Your task to perform on an android device: Search for "asus rog" on target, select the first entry, and add it to the cart. Image 0: 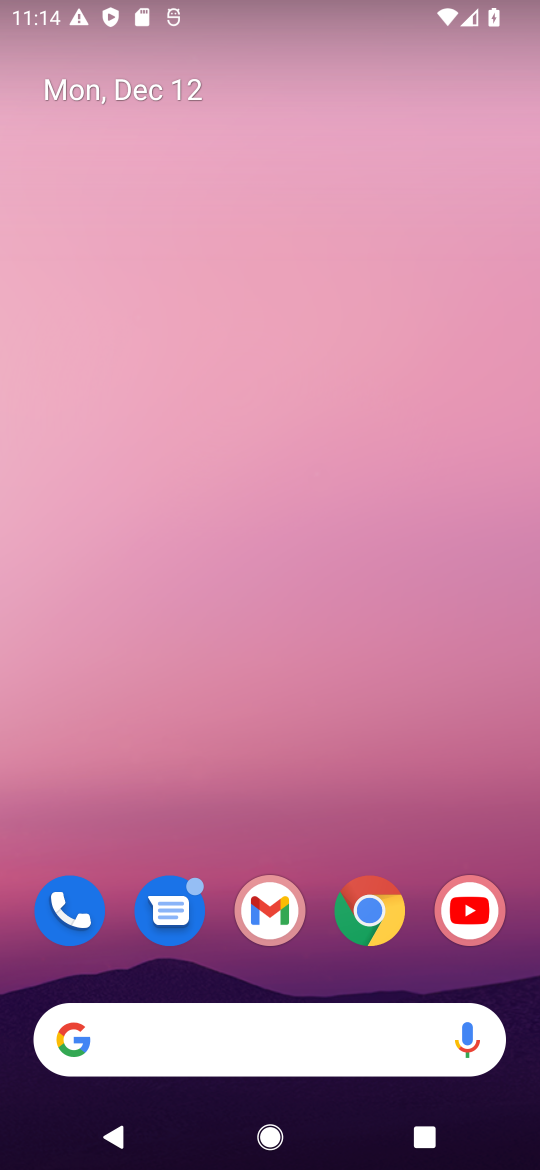
Step 0: click (356, 936)
Your task to perform on an android device: Search for "asus rog" on target, select the first entry, and add it to the cart. Image 1: 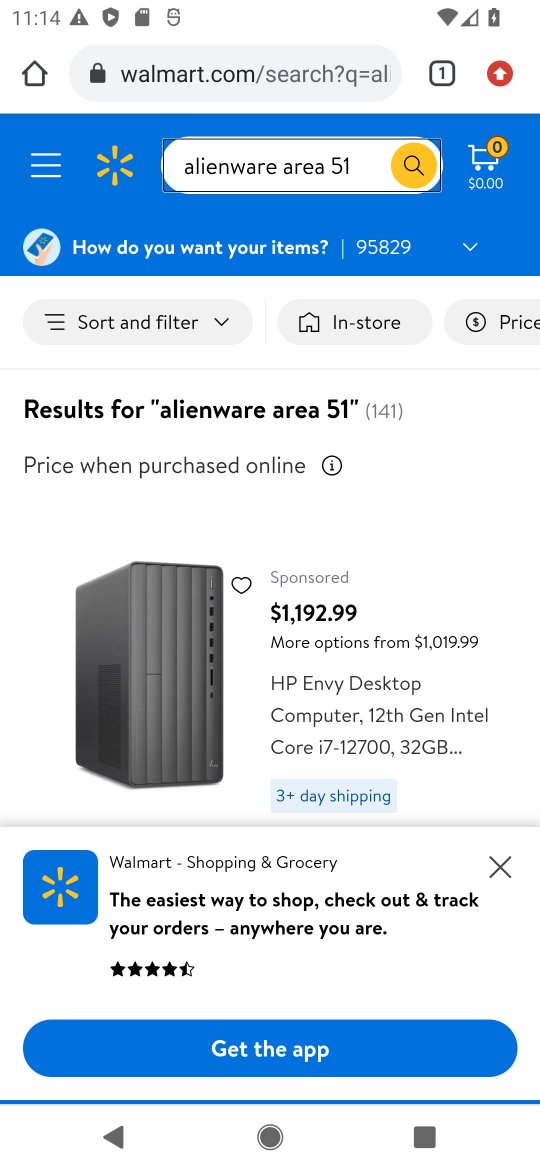
Step 1: click (260, 70)
Your task to perform on an android device: Search for "asus rog" on target, select the first entry, and add it to the cart. Image 2: 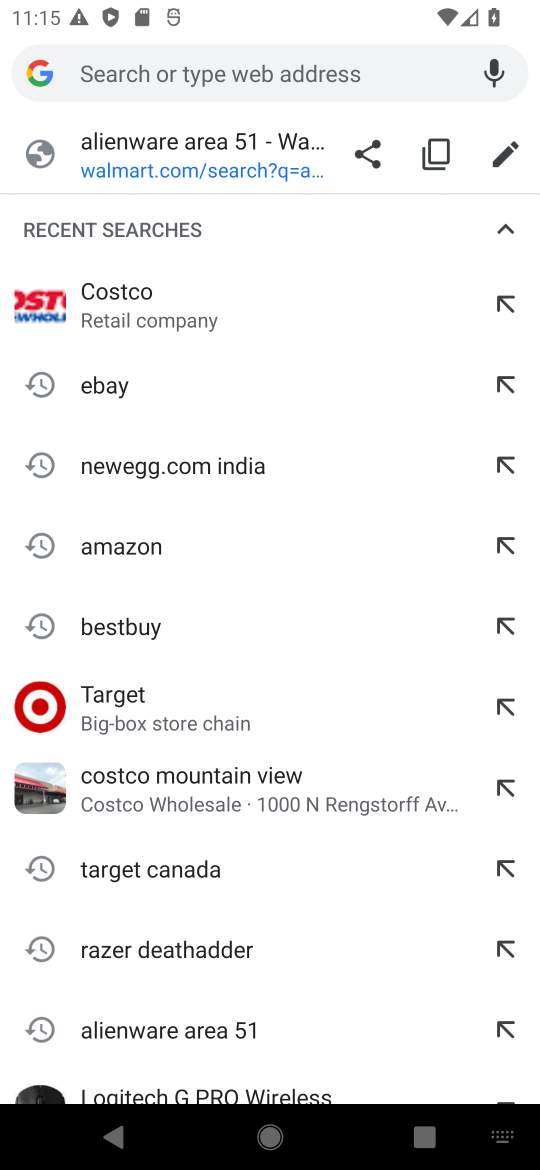
Step 2: click (115, 700)
Your task to perform on an android device: Search for "asus rog" on target, select the first entry, and add it to the cart. Image 3: 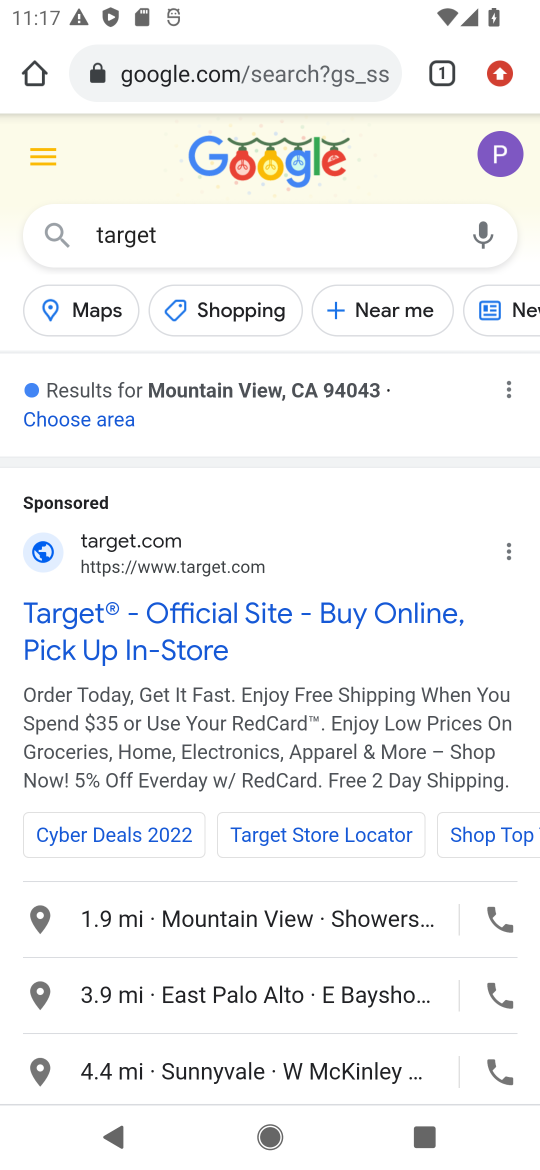
Step 3: click (140, 630)
Your task to perform on an android device: Search for "asus rog" on target, select the first entry, and add it to the cart. Image 4: 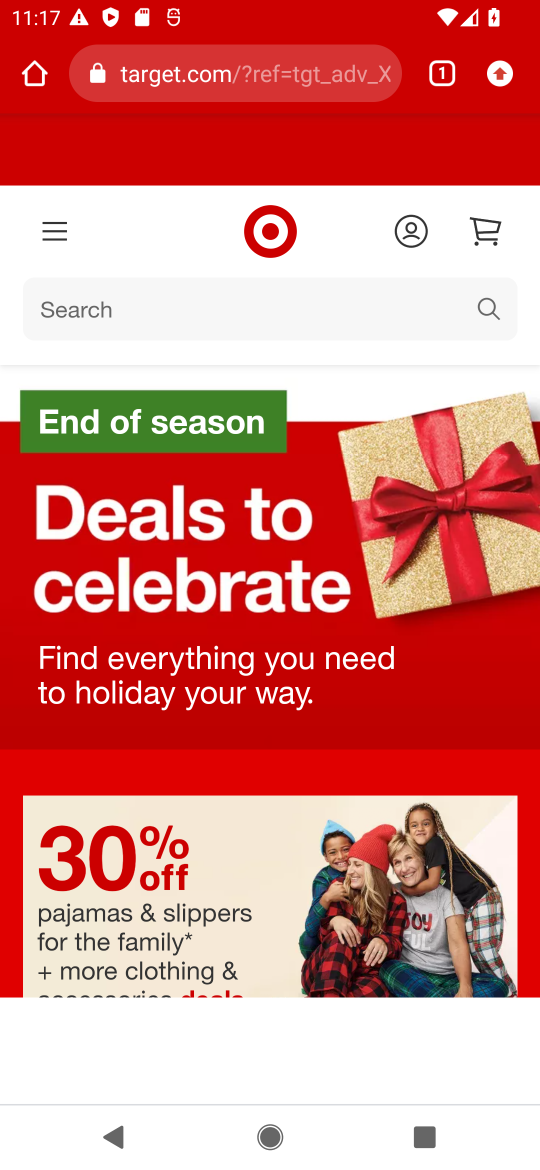
Step 4: click (294, 302)
Your task to perform on an android device: Search for "asus rog" on target, select the first entry, and add it to the cart. Image 5: 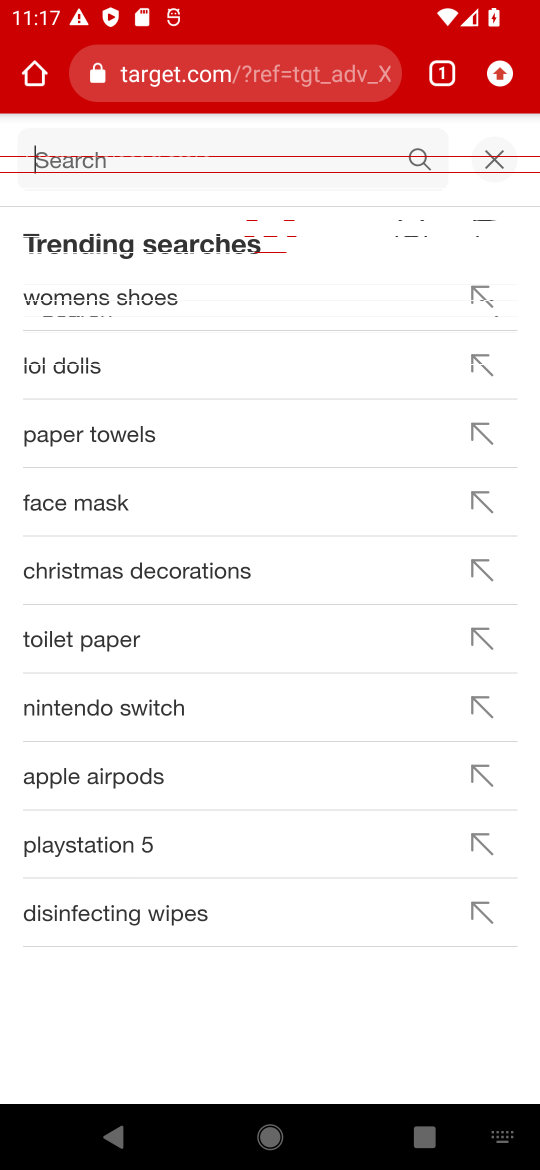
Step 5: type "asus rog"
Your task to perform on an android device: Search for "asus rog" on target, select the first entry, and add it to the cart. Image 6: 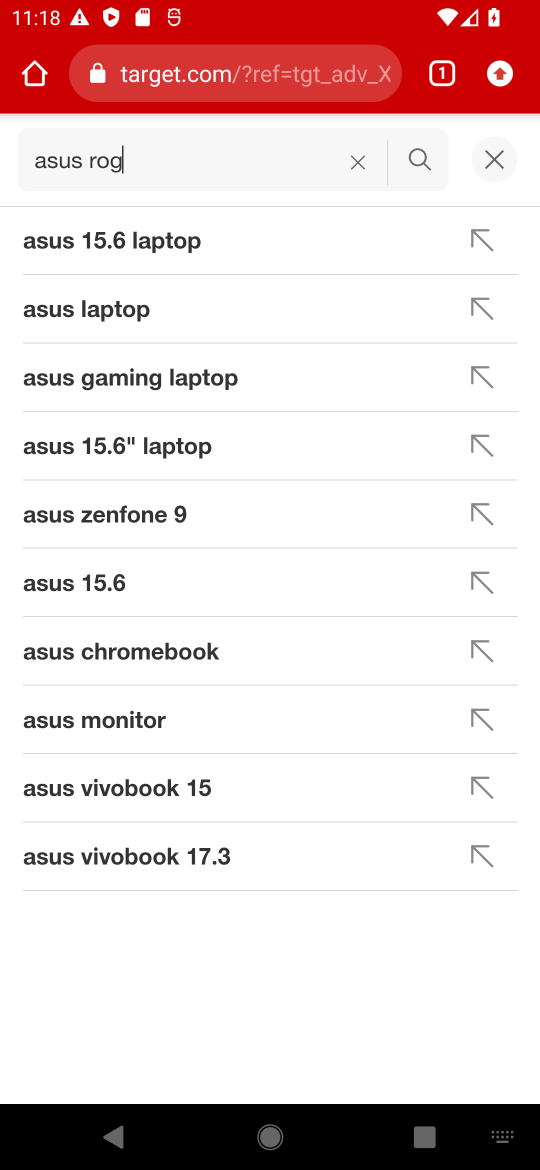
Step 6: click (109, 249)
Your task to perform on an android device: Search for "asus rog" on target, select the first entry, and add it to the cart. Image 7: 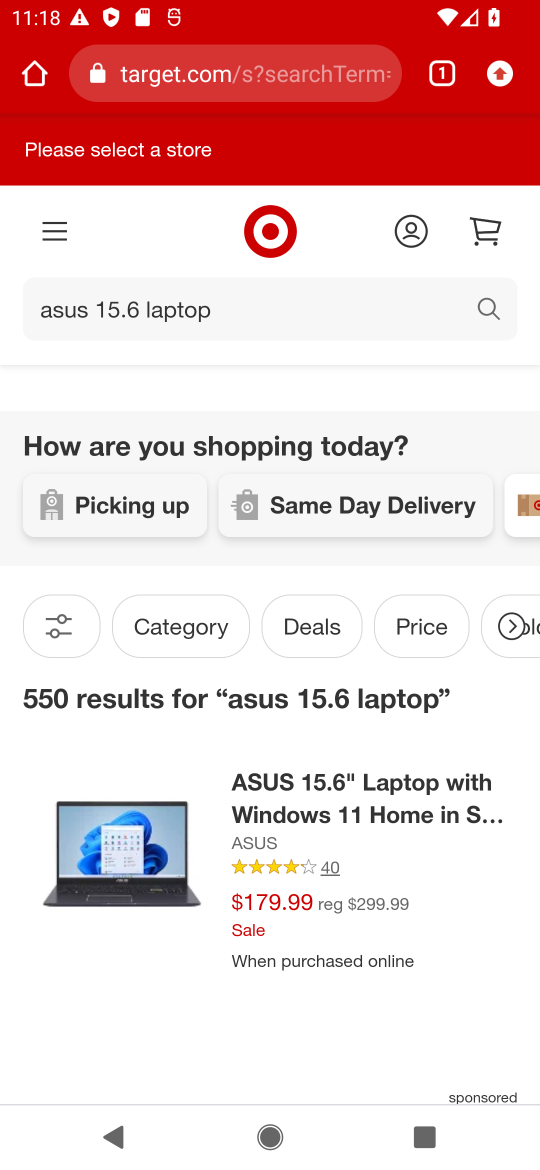
Step 7: drag from (370, 840) to (289, 282)
Your task to perform on an android device: Search for "asus rog" on target, select the first entry, and add it to the cart. Image 8: 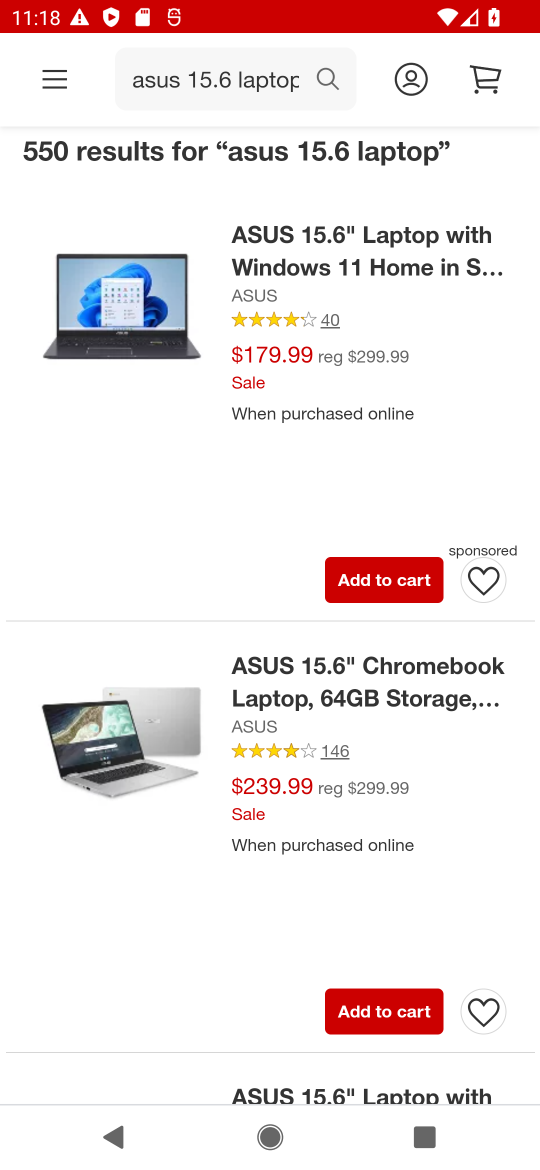
Step 8: click (367, 576)
Your task to perform on an android device: Search for "asus rog" on target, select the first entry, and add it to the cart. Image 9: 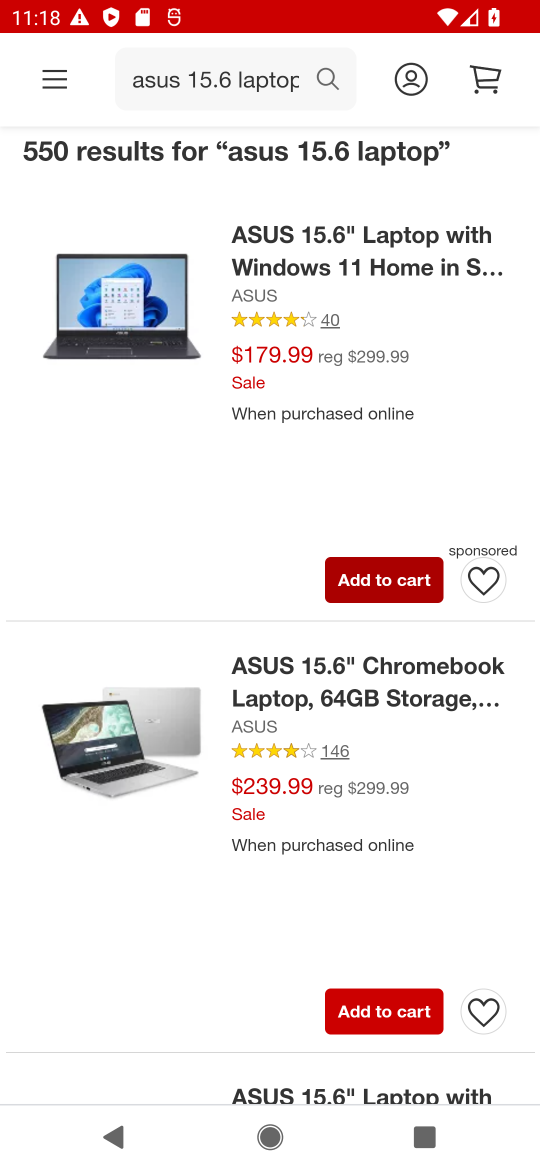
Step 9: task complete